Your task to perform on an android device: Open maps Image 0: 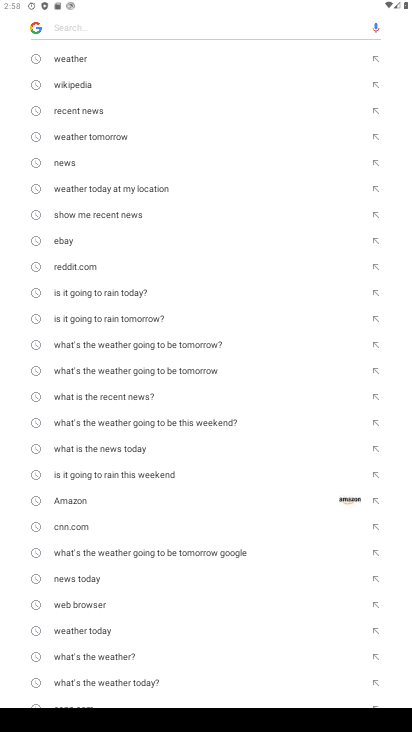
Step 0: press home button
Your task to perform on an android device: Open maps Image 1: 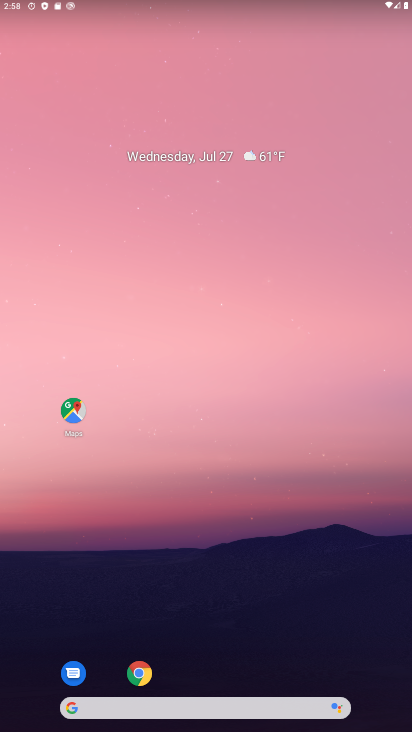
Step 1: click (75, 405)
Your task to perform on an android device: Open maps Image 2: 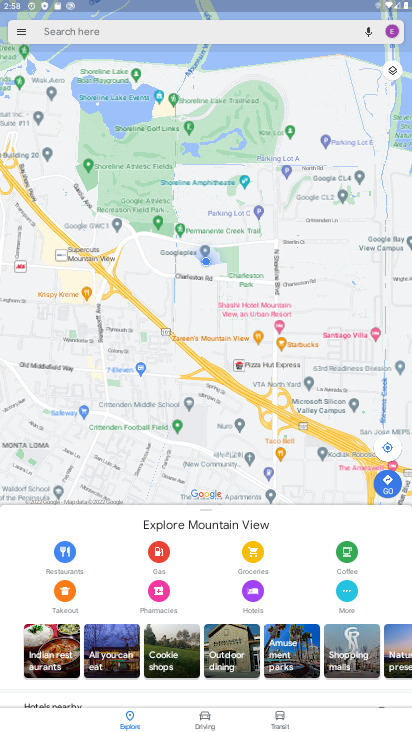
Step 2: task complete